Your task to perform on an android device: toggle pop-ups in chrome Image 0: 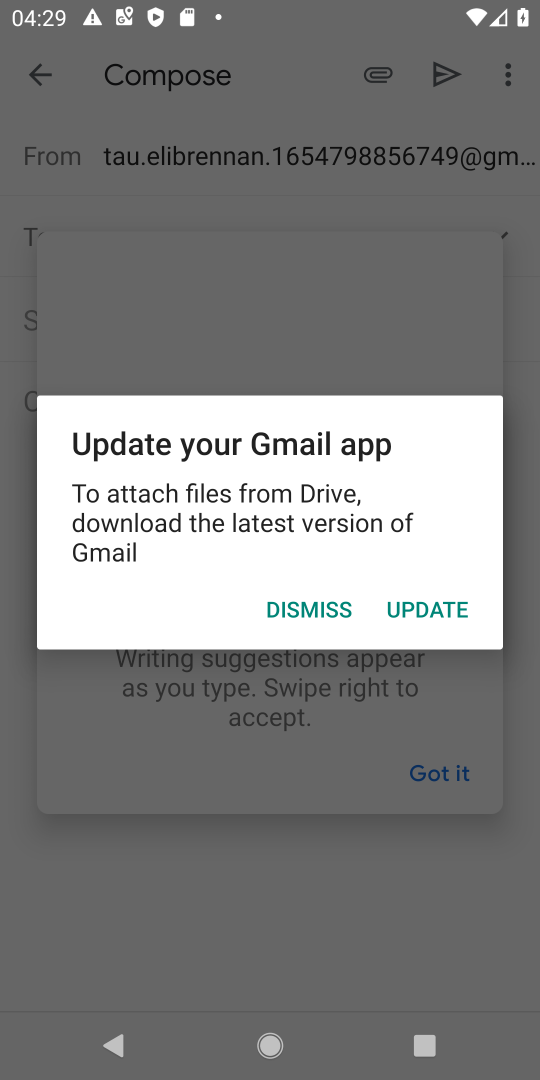
Step 0: press home button
Your task to perform on an android device: toggle pop-ups in chrome Image 1: 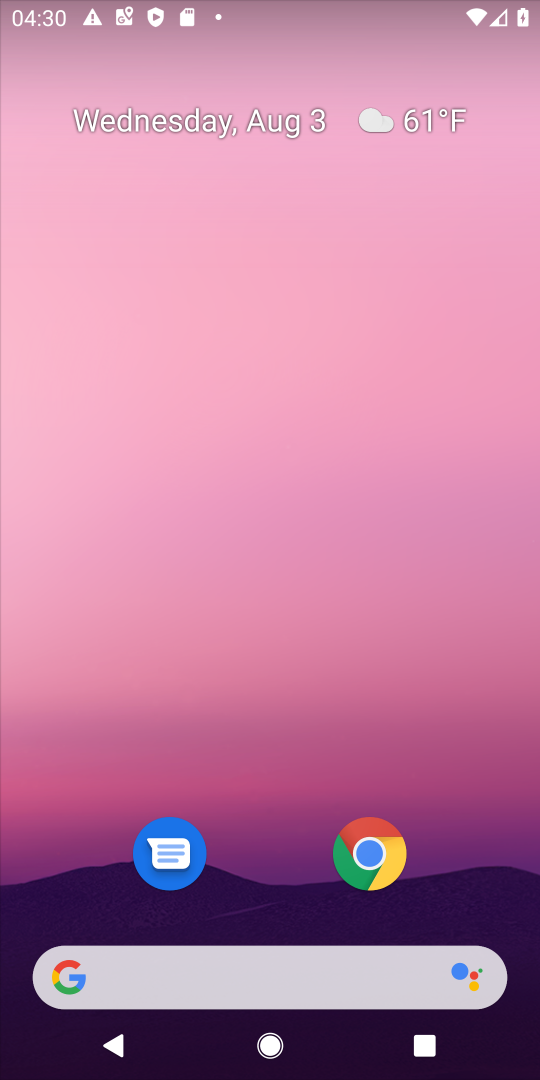
Step 1: click (374, 850)
Your task to perform on an android device: toggle pop-ups in chrome Image 2: 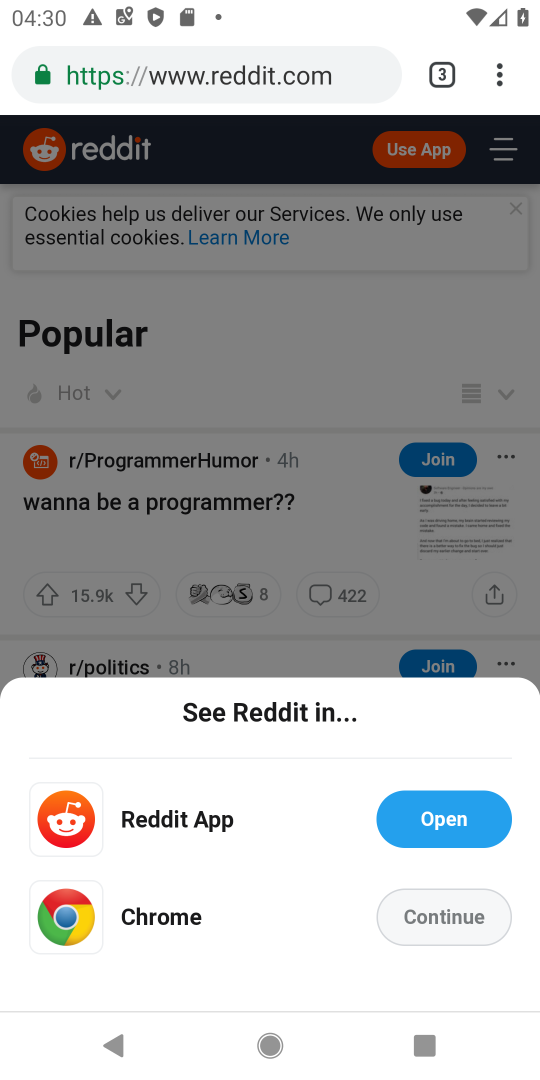
Step 2: click (498, 89)
Your task to perform on an android device: toggle pop-ups in chrome Image 3: 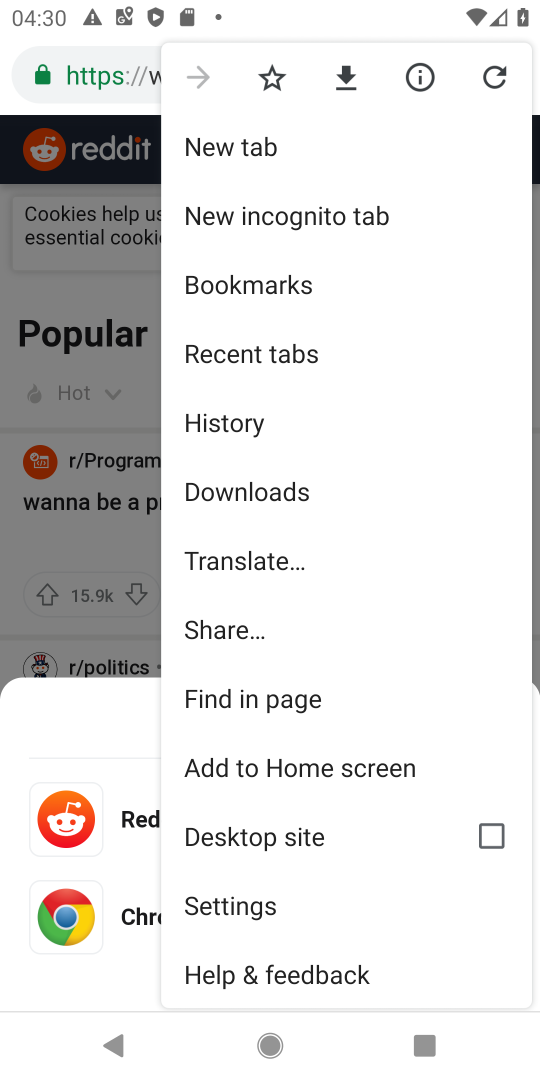
Step 3: click (237, 900)
Your task to perform on an android device: toggle pop-ups in chrome Image 4: 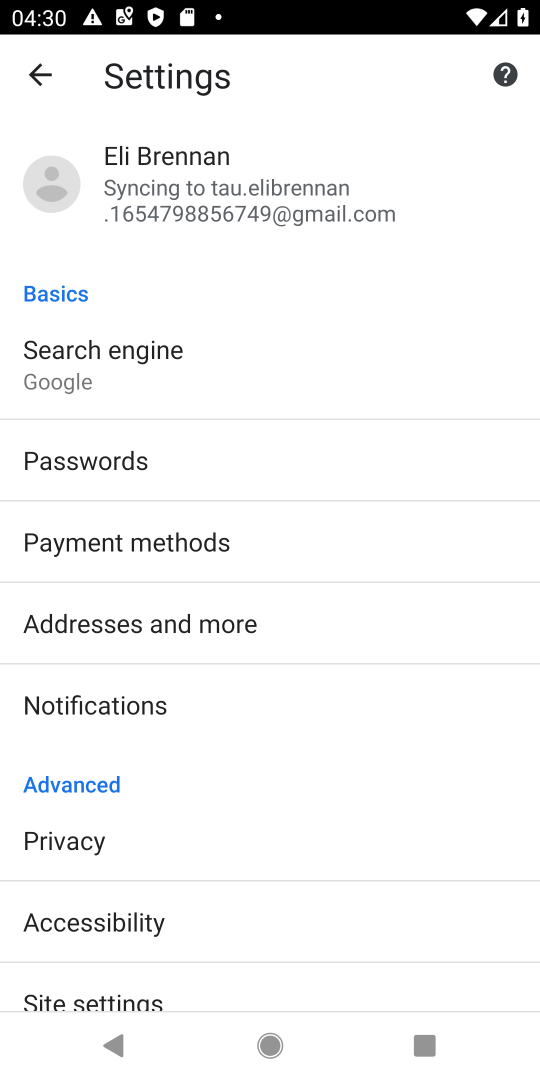
Step 4: drag from (125, 918) to (157, 475)
Your task to perform on an android device: toggle pop-ups in chrome Image 5: 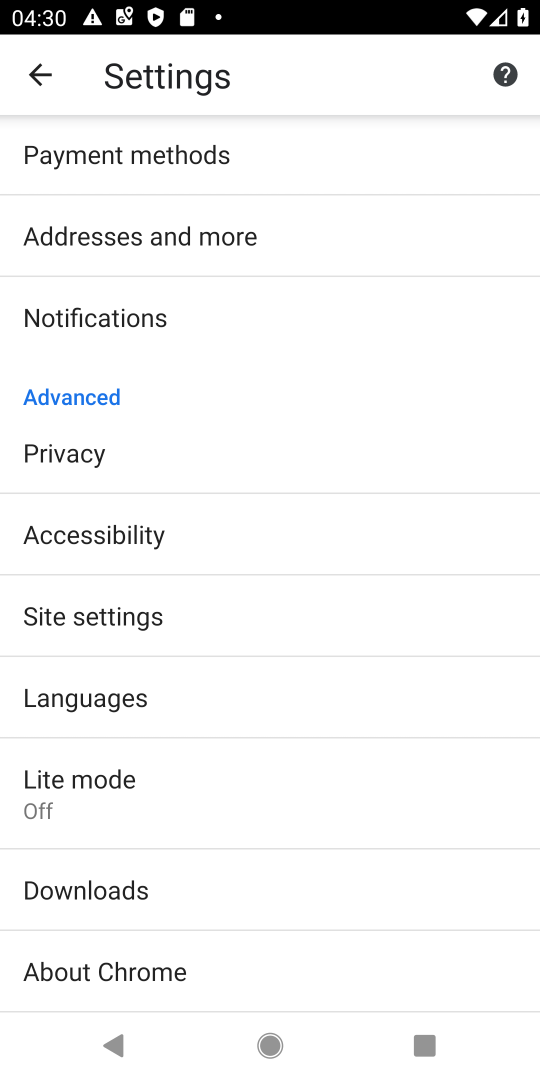
Step 5: click (83, 616)
Your task to perform on an android device: toggle pop-ups in chrome Image 6: 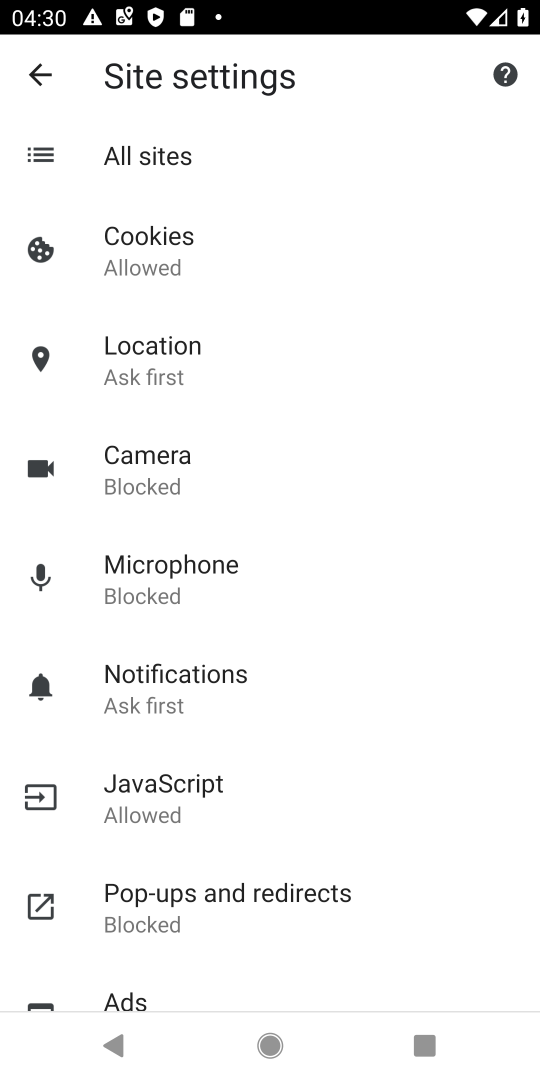
Step 6: click (190, 904)
Your task to perform on an android device: toggle pop-ups in chrome Image 7: 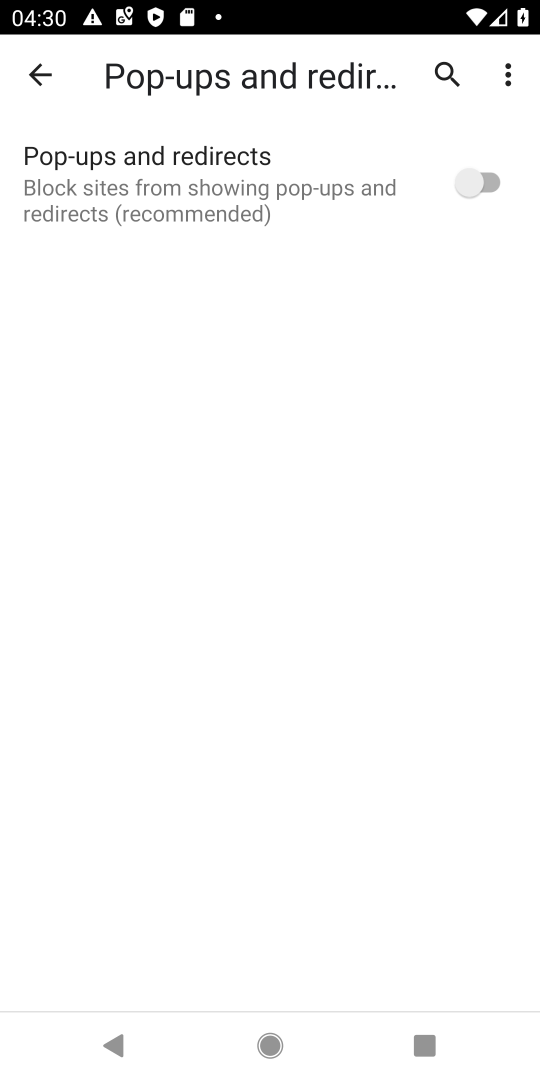
Step 7: click (490, 180)
Your task to perform on an android device: toggle pop-ups in chrome Image 8: 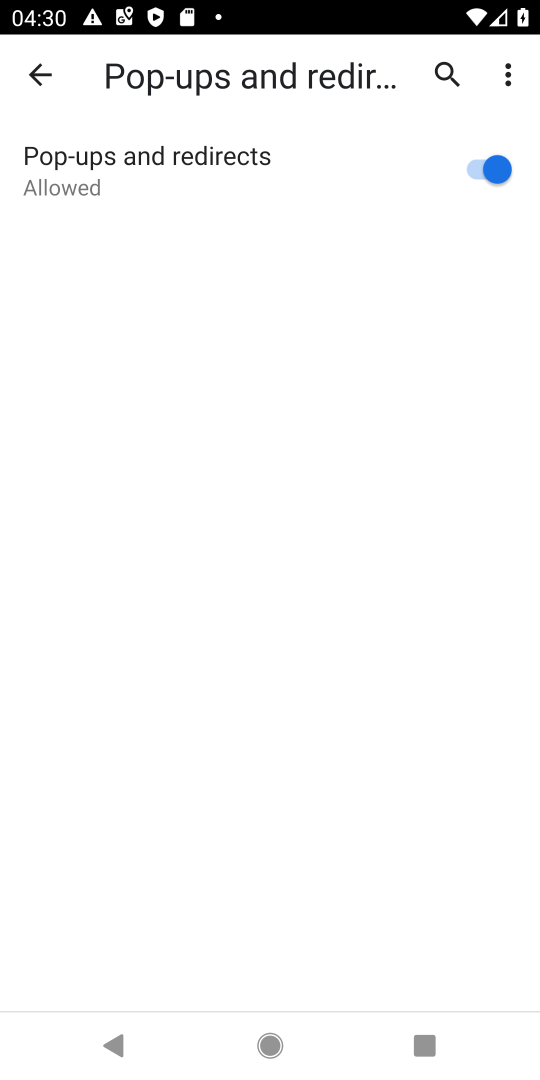
Step 8: task complete